Your task to perform on an android device: Go to wifi settings Image 0: 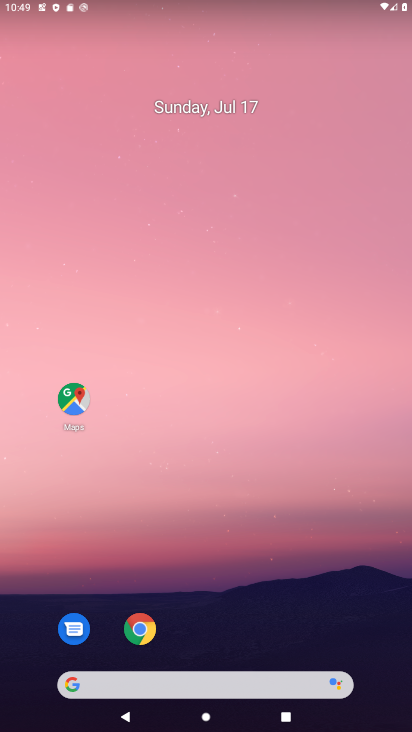
Step 0: drag from (263, 630) to (247, 72)
Your task to perform on an android device: Go to wifi settings Image 1: 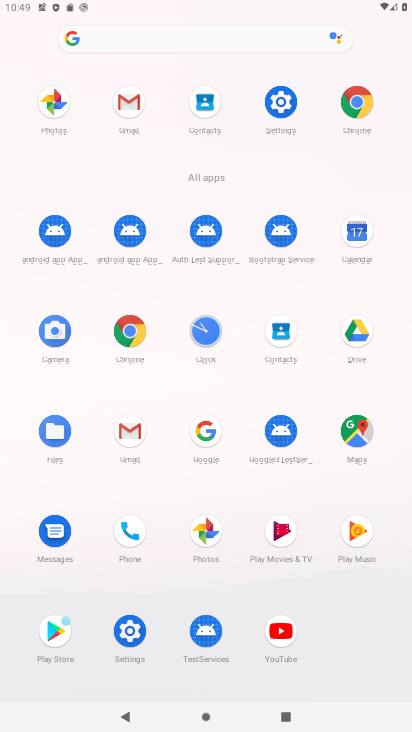
Step 1: click (272, 104)
Your task to perform on an android device: Go to wifi settings Image 2: 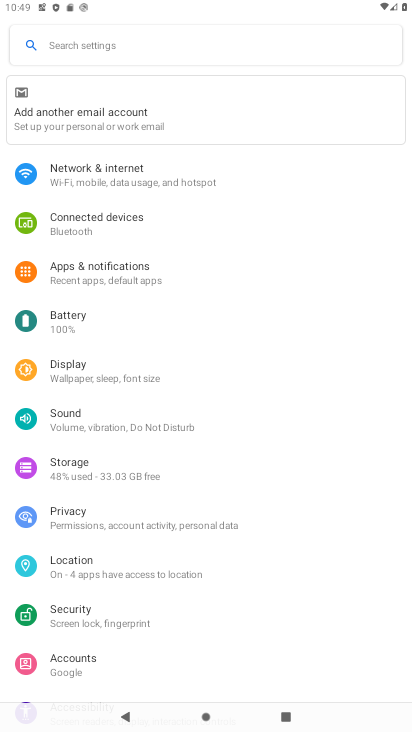
Step 2: click (117, 172)
Your task to perform on an android device: Go to wifi settings Image 3: 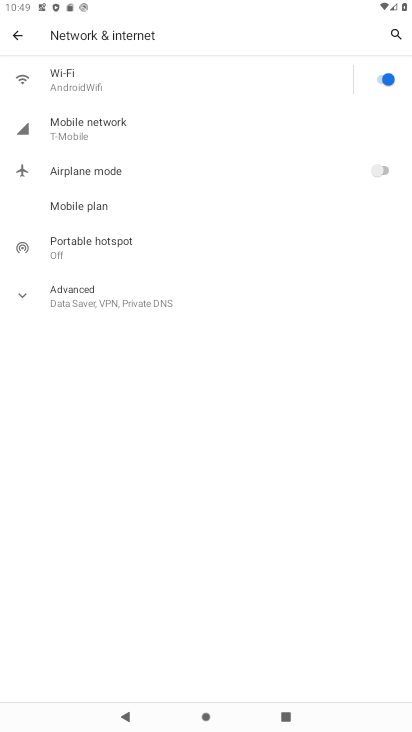
Step 3: click (99, 71)
Your task to perform on an android device: Go to wifi settings Image 4: 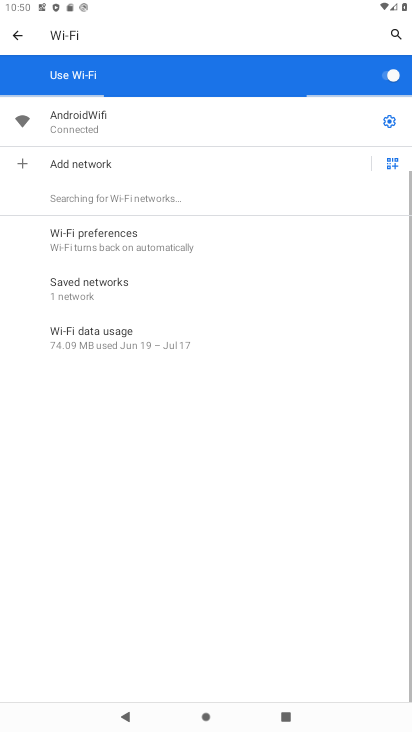
Step 4: task complete